Your task to perform on an android device: Search for usb-b on walmart, select the first entry, and add it to the cart. Image 0: 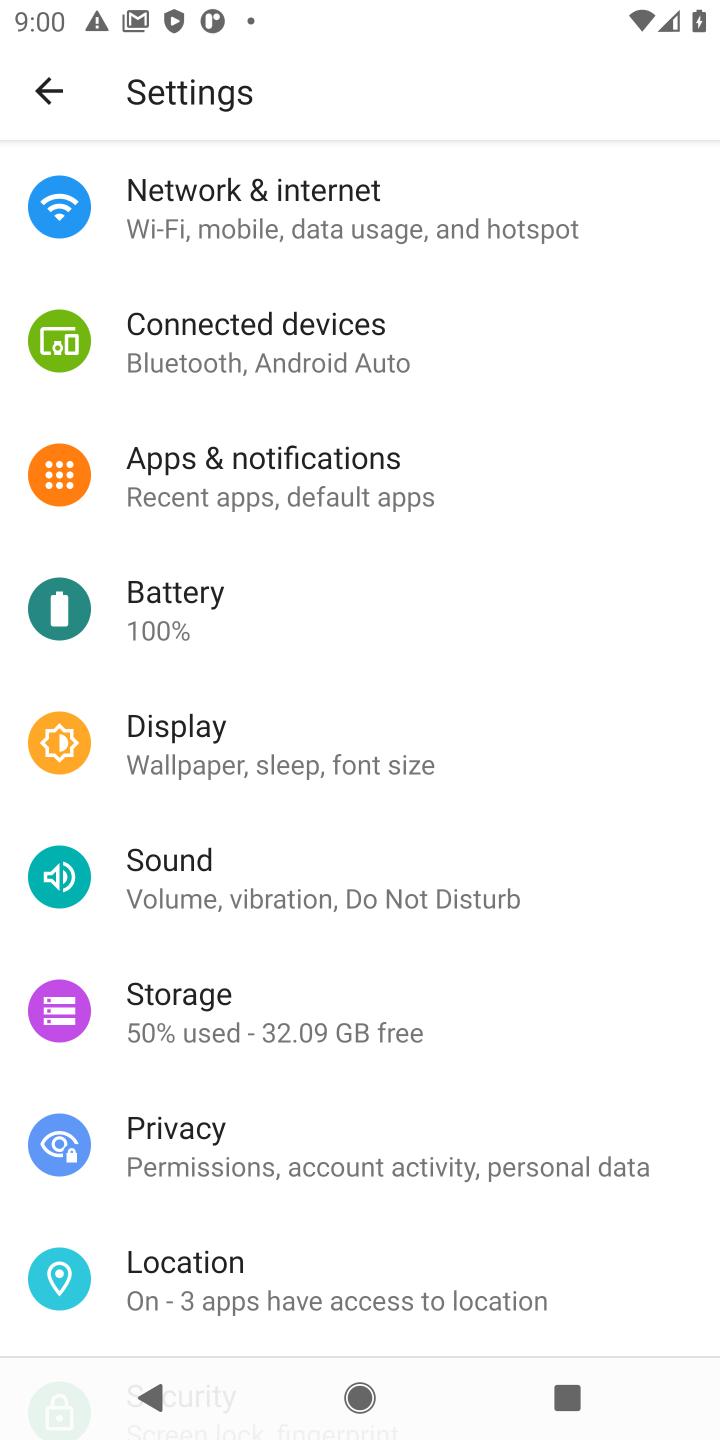
Step 0: press home button
Your task to perform on an android device: Search for usb-b on walmart, select the first entry, and add it to the cart. Image 1: 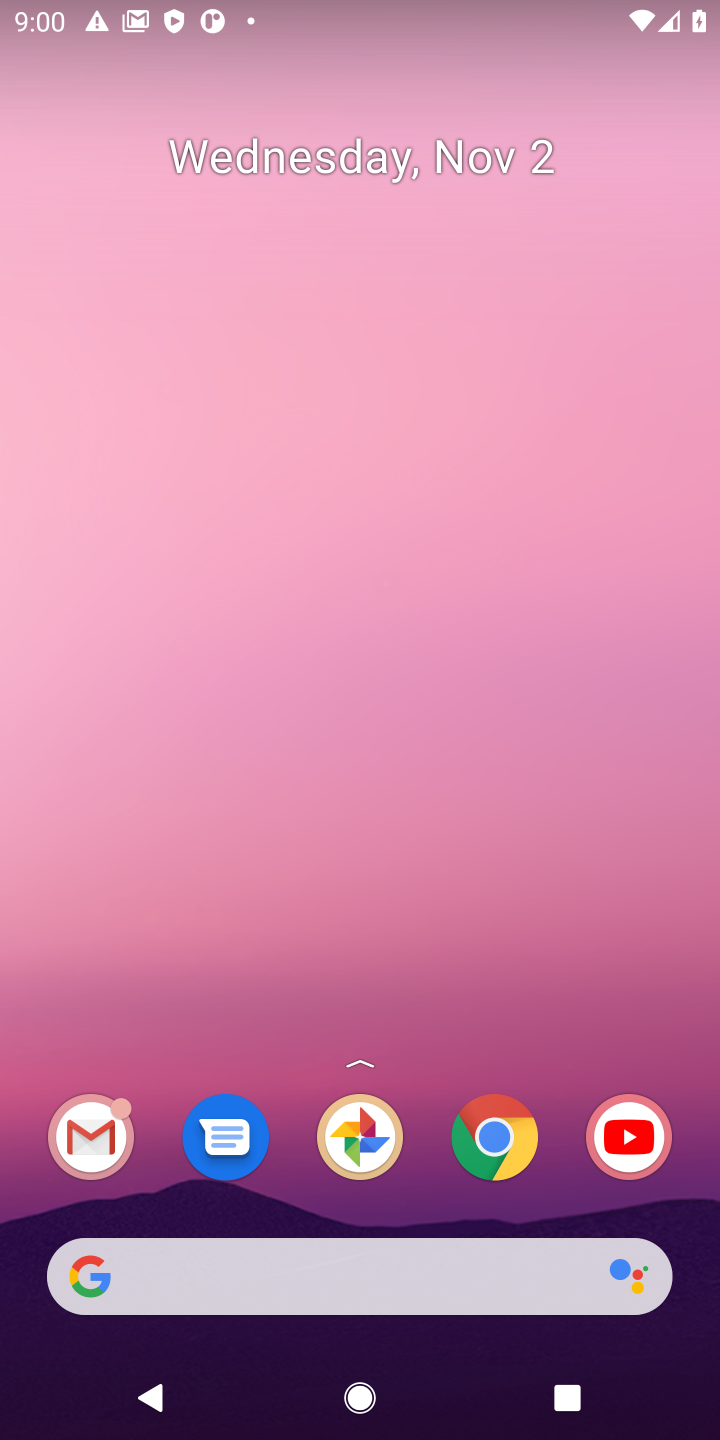
Step 1: click (499, 1137)
Your task to perform on an android device: Search for usb-b on walmart, select the first entry, and add it to the cart. Image 2: 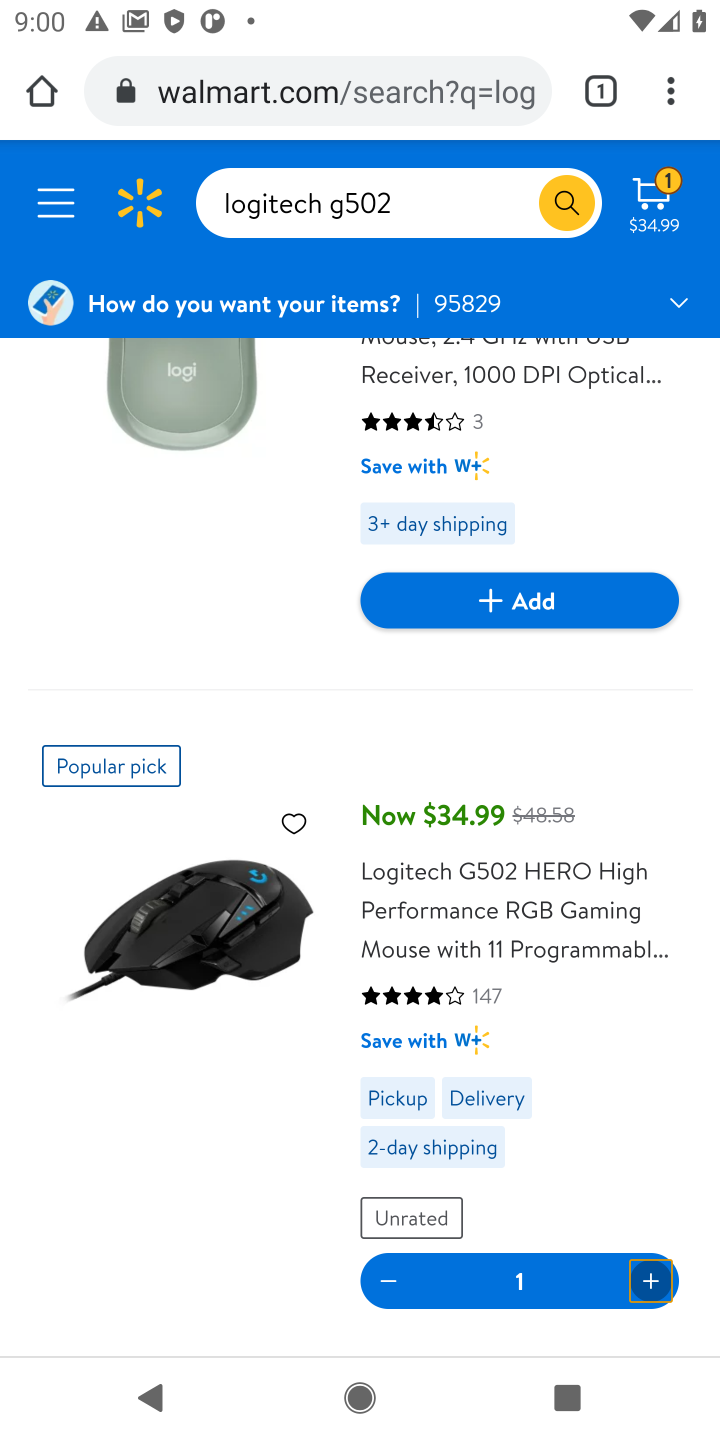
Step 2: click (426, 196)
Your task to perform on an android device: Search for usb-b on walmart, select the first entry, and add it to the cart. Image 3: 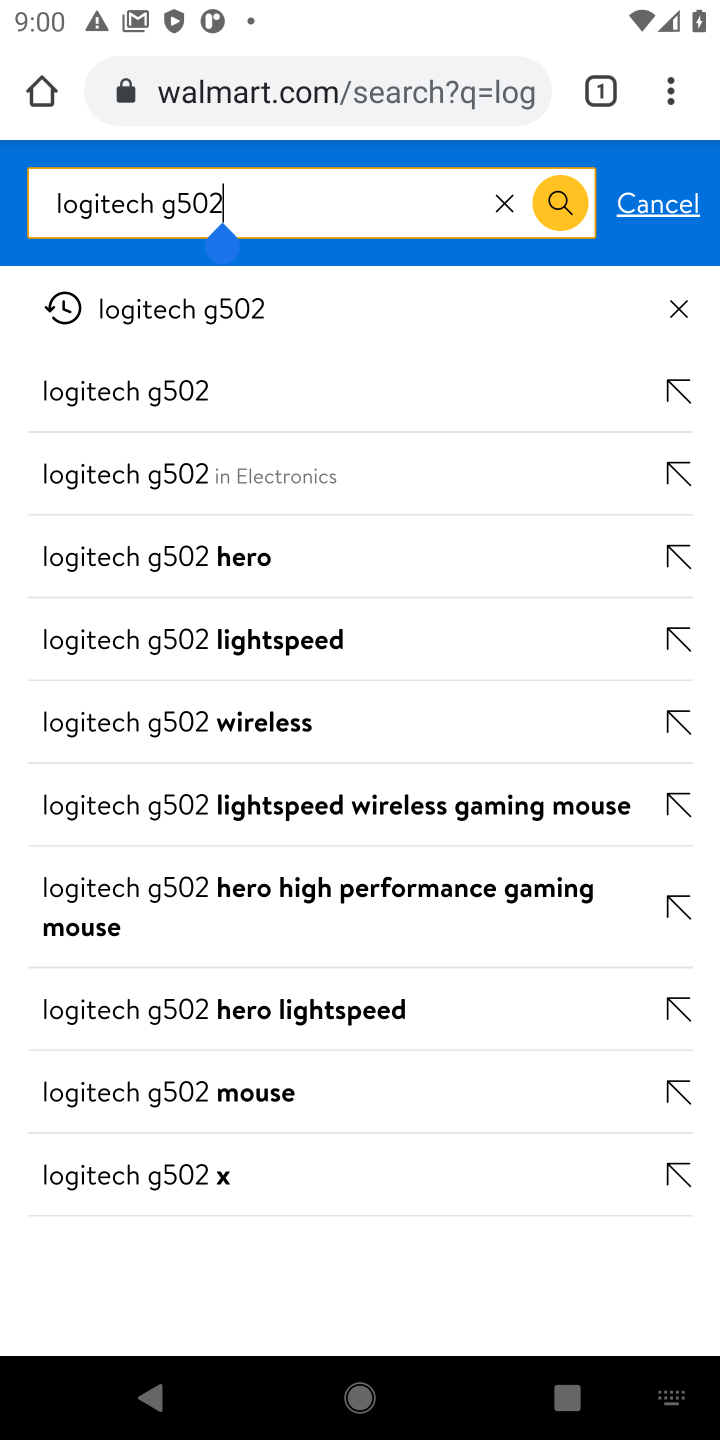
Step 3: click (497, 198)
Your task to perform on an android device: Search for usb-b on walmart, select the first entry, and add it to the cart. Image 4: 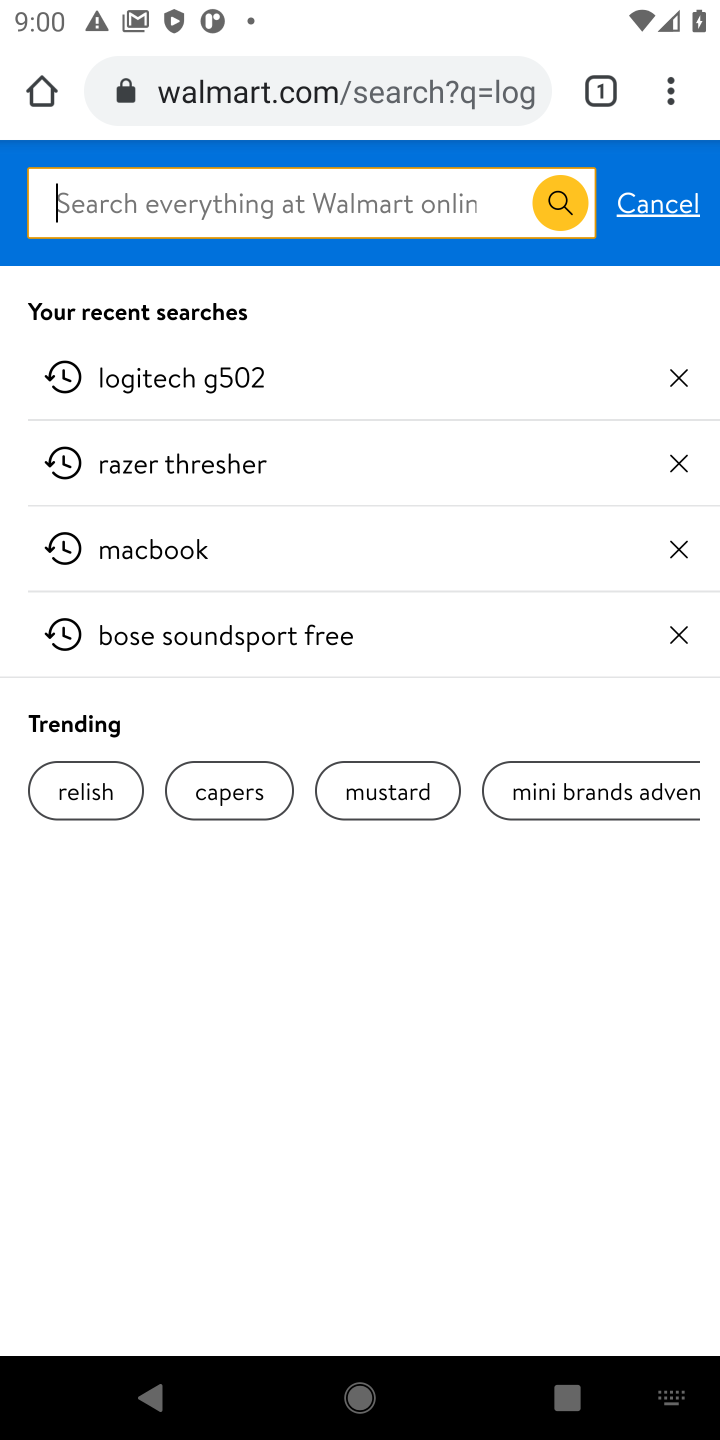
Step 4: type "usb-b"
Your task to perform on an android device: Search for usb-b on walmart, select the first entry, and add it to the cart. Image 5: 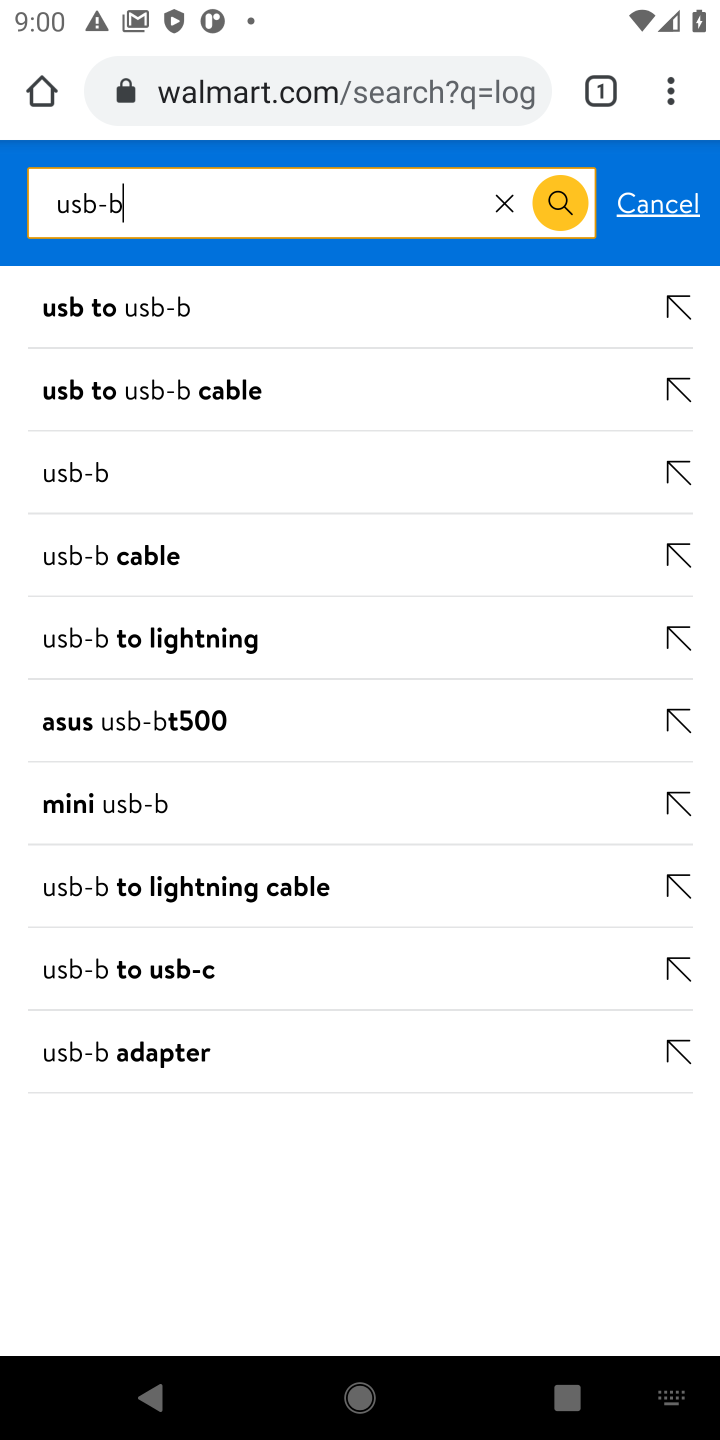
Step 5: click (79, 288)
Your task to perform on an android device: Search for usb-b on walmart, select the first entry, and add it to the cart. Image 6: 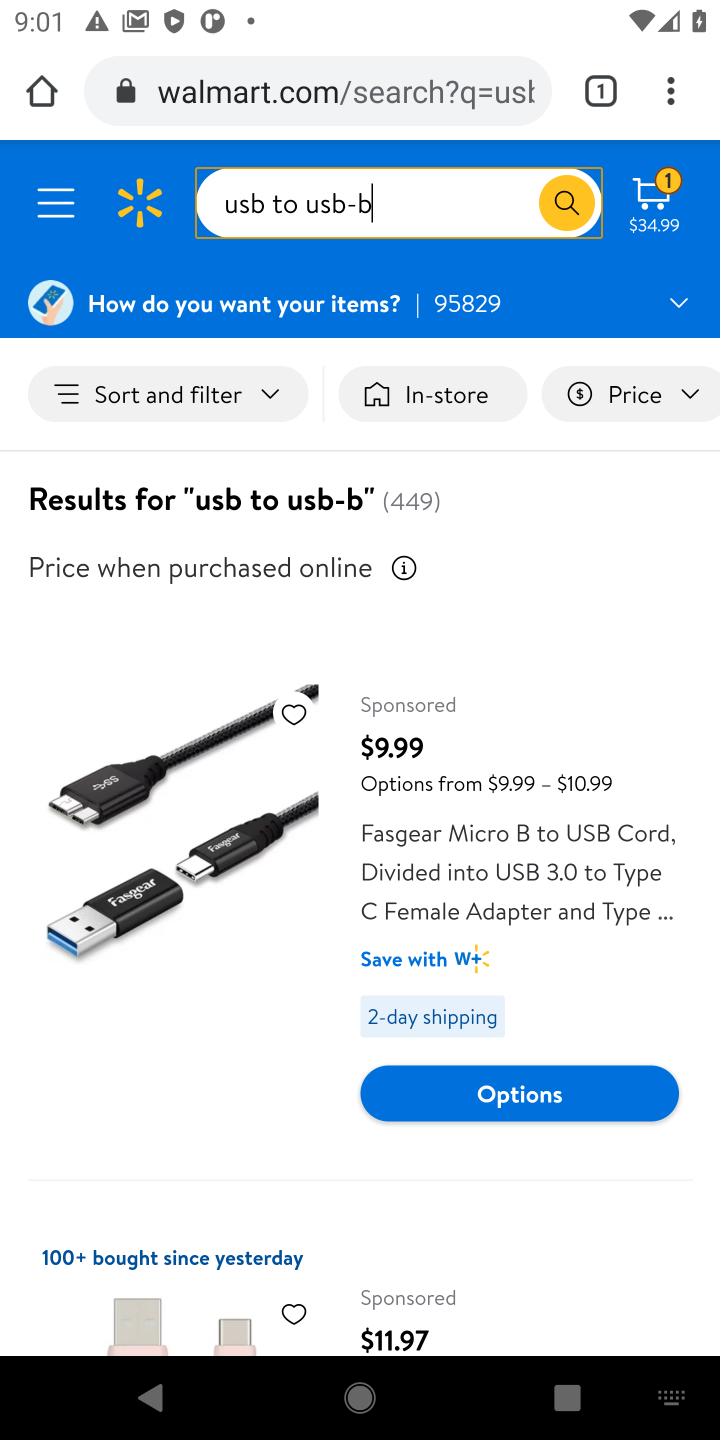
Step 6: click (516, 1084)
Your task to perform on an android device: Search for usb-b on walmart, select the first entry, and add it to the cart. Image 7: 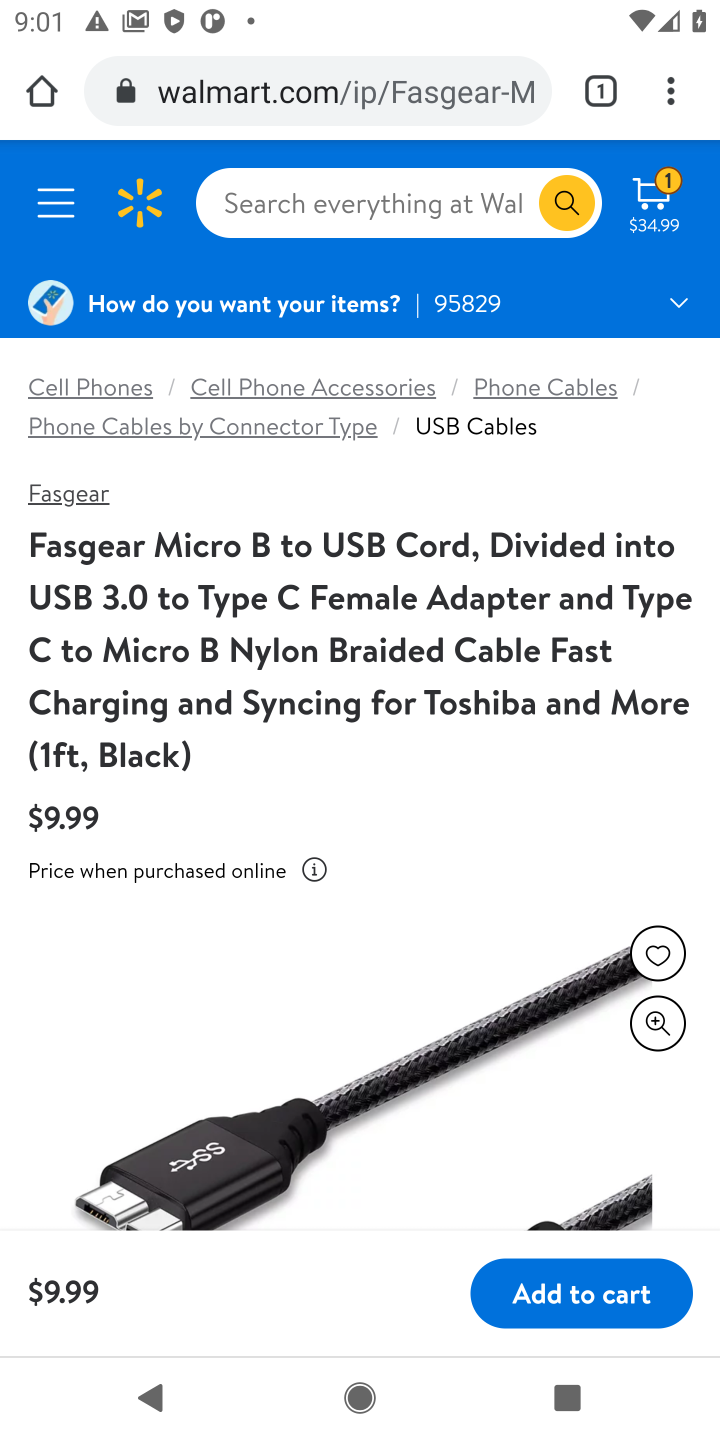
Step 7: click (563, 1301)
Your task to perform on an android device: Search for usb-b on walmart, select the first entry, and add it to the cart. Image 8: 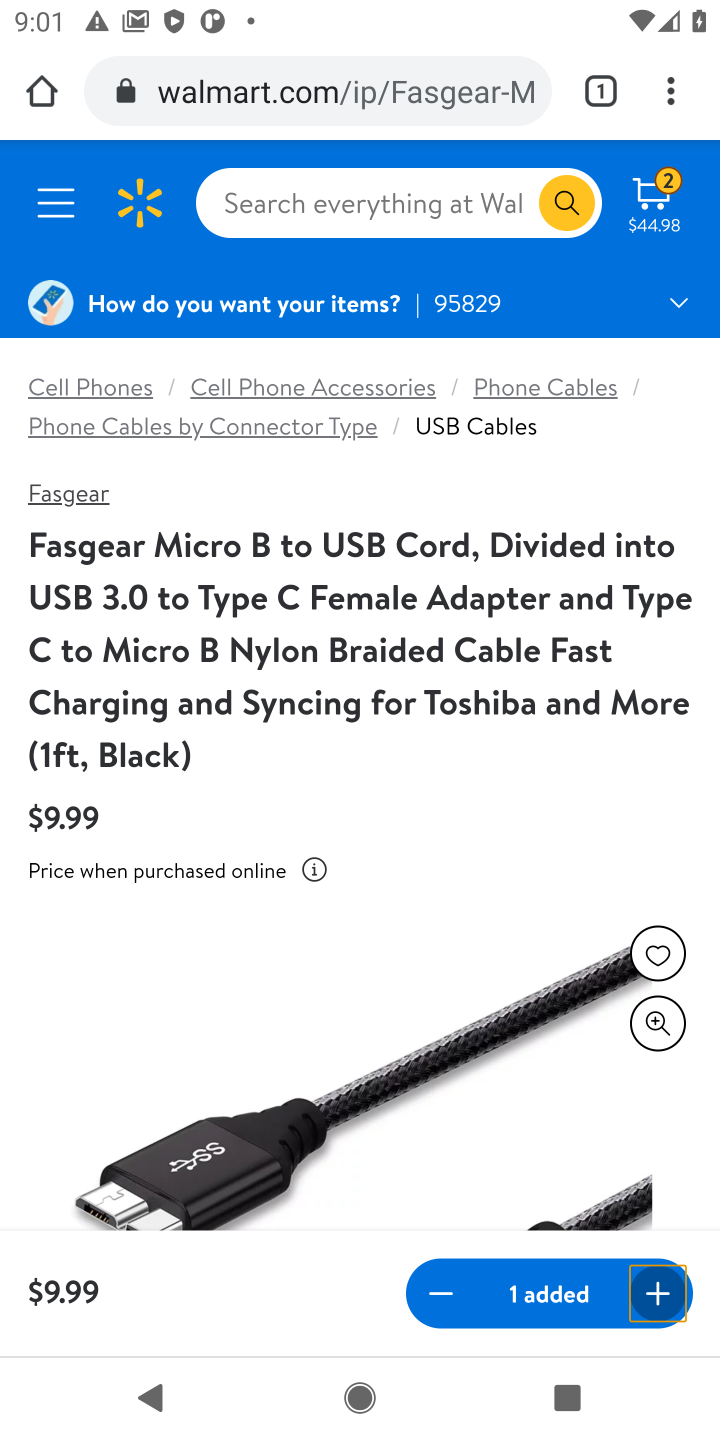
Step 8: task complete